Your task to perform on an android device: Go to ESPN.com Image 0: 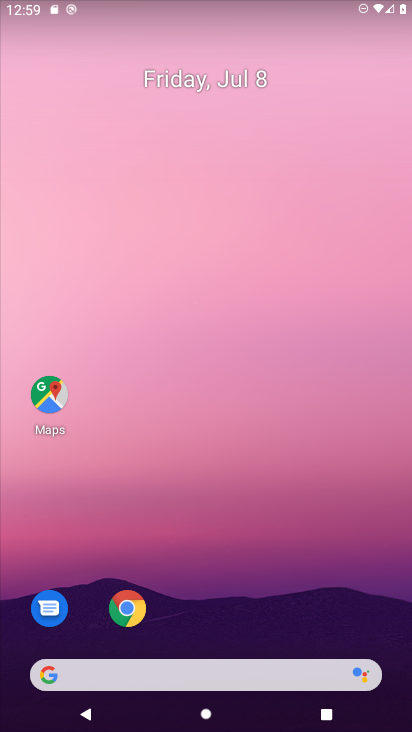
Step 0: drag from (235, 618) to (277, 10)
Your task to perform on an android device: Go to ESPN.com Image 1: 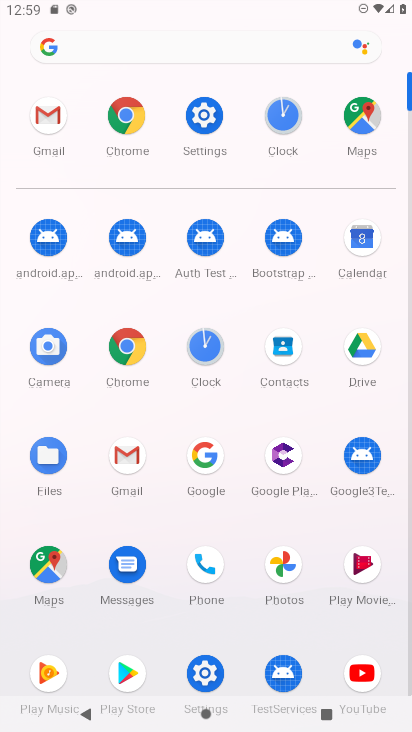
Step 1: click (140, 109)
Your task to perform on an android device: Go to ESPN.com Image 2: 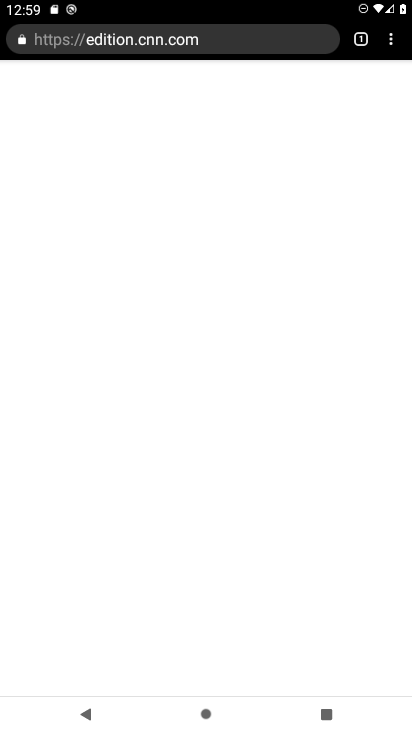
Step 2: click (233, 41)
Your task to perform on an android device: Go to ESPN.com Image 3: 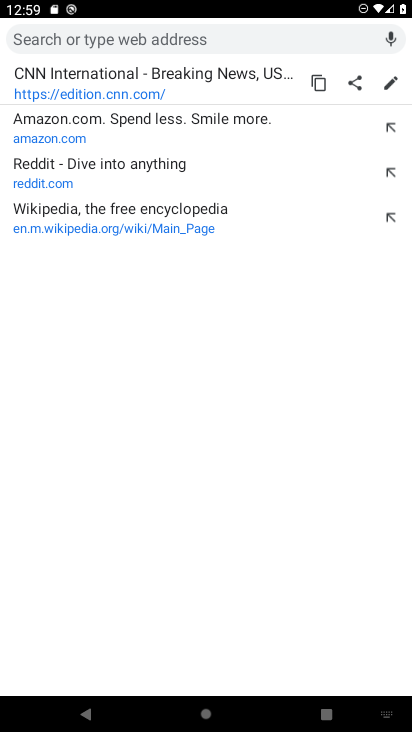
Step 3: type "espn.com"
Your task to perform on an android device: Go to ESPN.com Image 4: 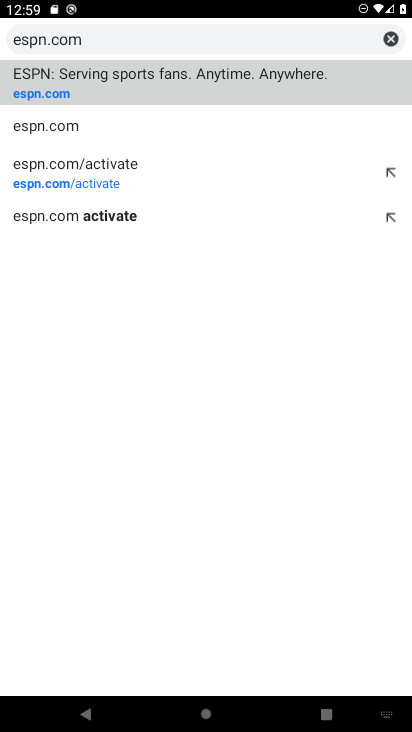
Step 4: click (106, 84)
Your task to perform on an android device: Go to ESPN.com Image 5: 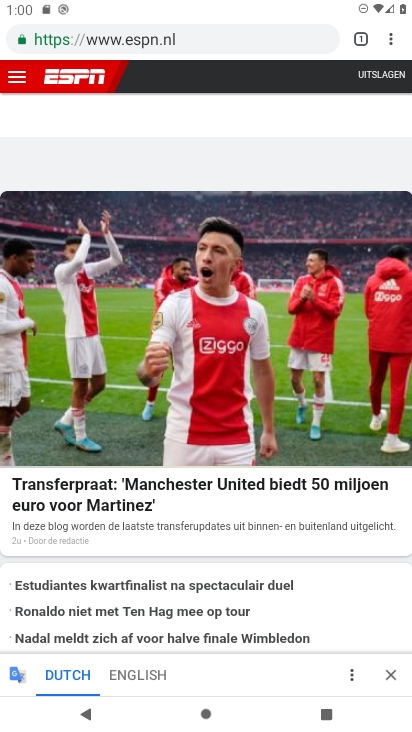
Step 5: task complete